Your task to perform on an android device: toggle wifi Image 0: 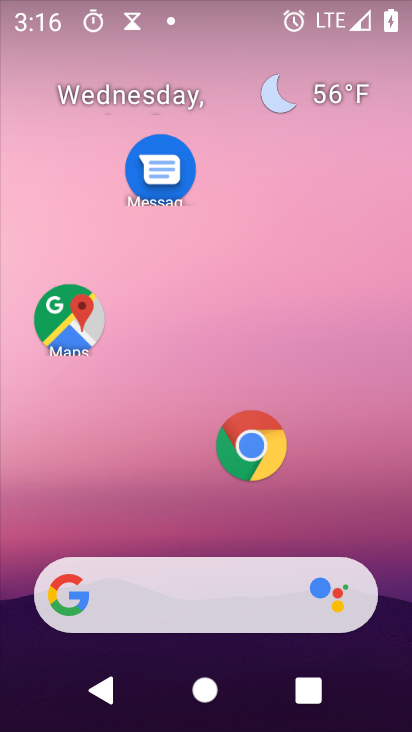
Step 0: drag from (252, 25) to (275, 374)
Your task to perform on an android device: toggle wifi Image 1: 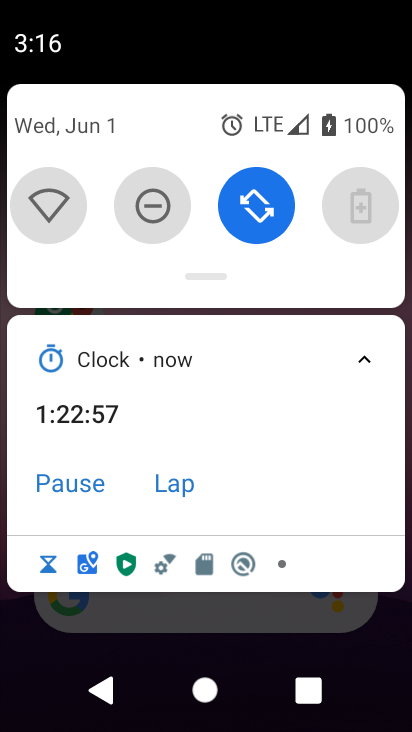
Step 1: click (57, 201)
Your task to perform on an android device: toggle wifi Image 2: 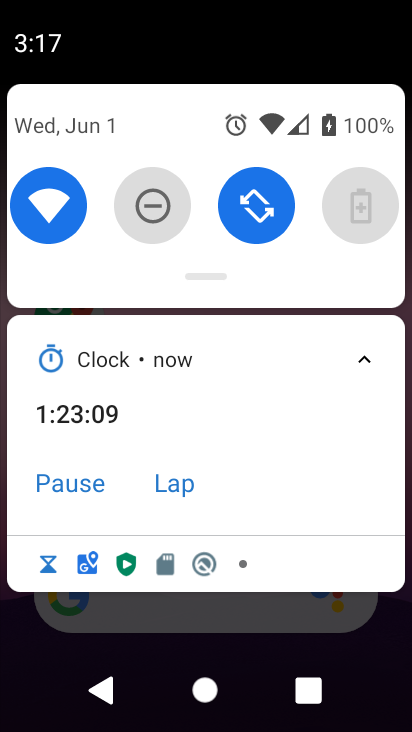
Step 2: task complete